Your task to perform on an android device: Open network settings Image 0: 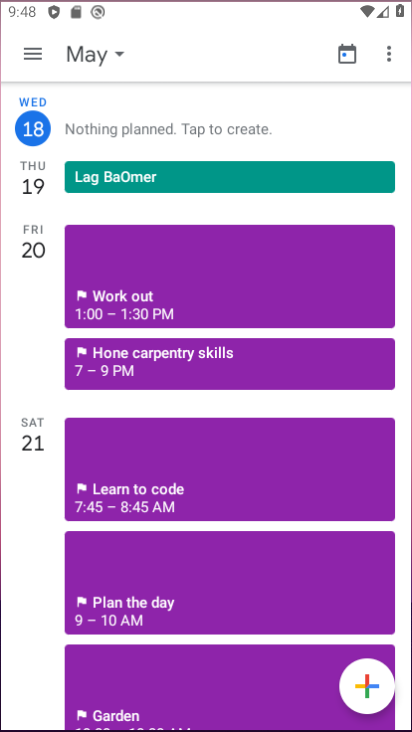
Step 0: drag from (207, 660) to (217, 299)
Your task to perform on an android device: Open network settings Image 1: 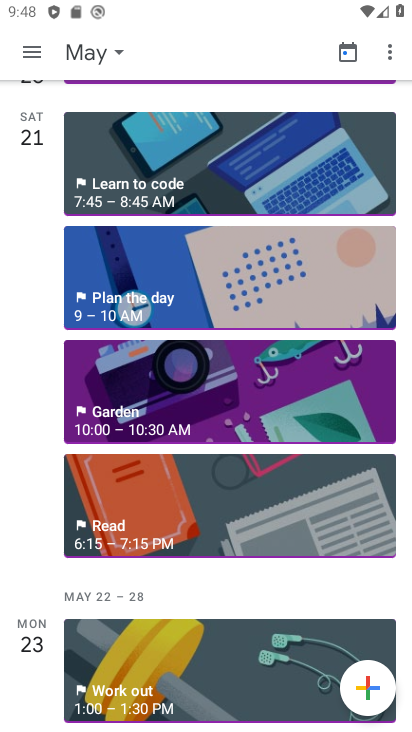
Step 1: press home button
Your task to perform on an android device: Open network settings Image 2: 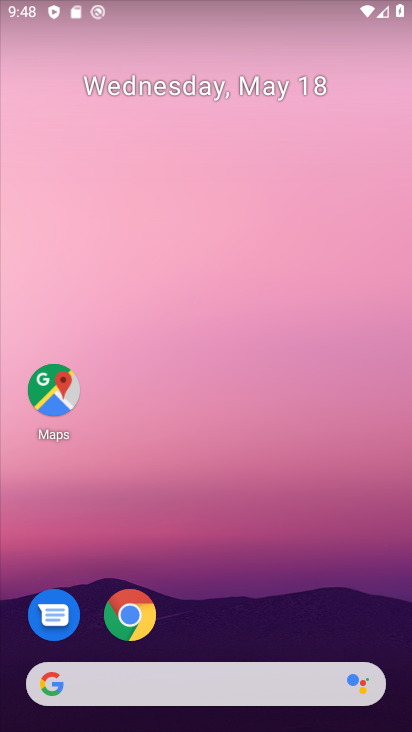
Step 2: drag from (233, 611) to (217, 262)
Your task to perform on an android device: Open network settings Image 3: 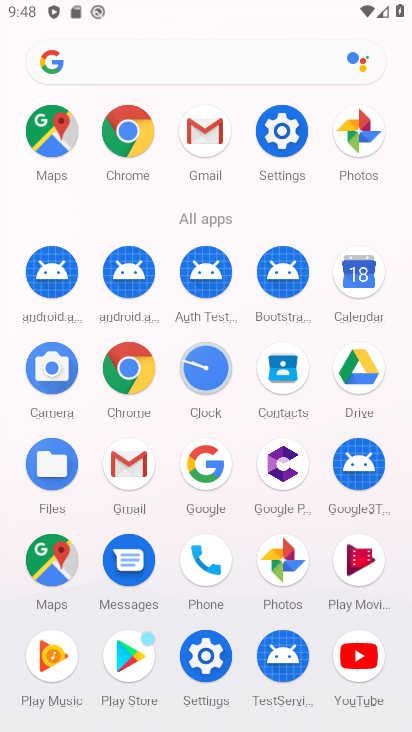
Step 3: click (273, 137)
Your task to perform on an android device: Open network settings Image 4: 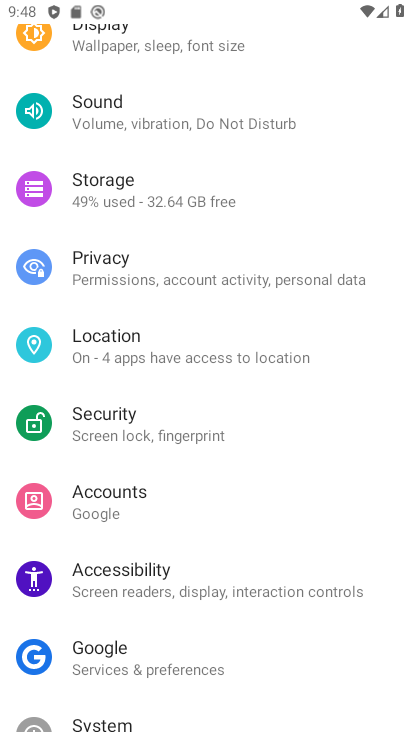
Step 4: drag from (156, 704) to (104, 278)
Your task to perform on an android device: Open network settings Image 5: 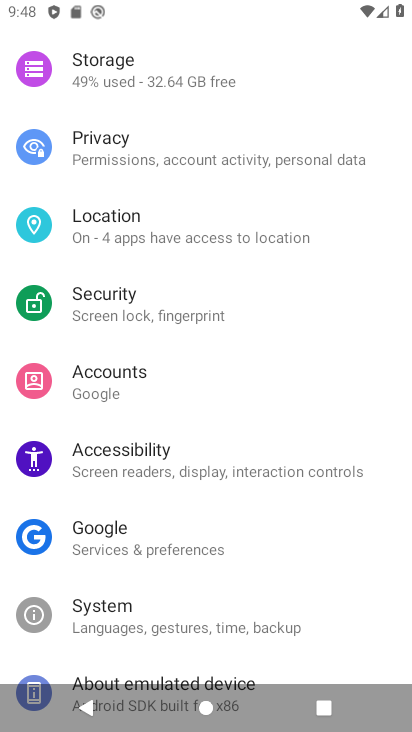
Step 5: drag from (153, 603) to (154, 187)
Your task to perform on an android device: Open network settings Image 6: 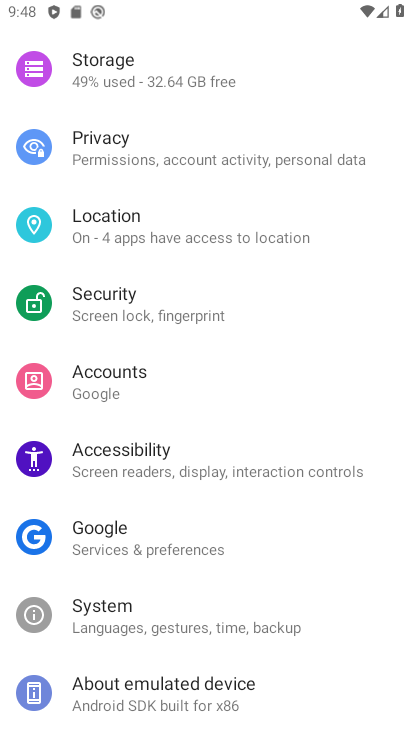
Step 6: drag from (158, 49) to (157, 475)
Your task to perform on an android device: Open network settings Image 7: 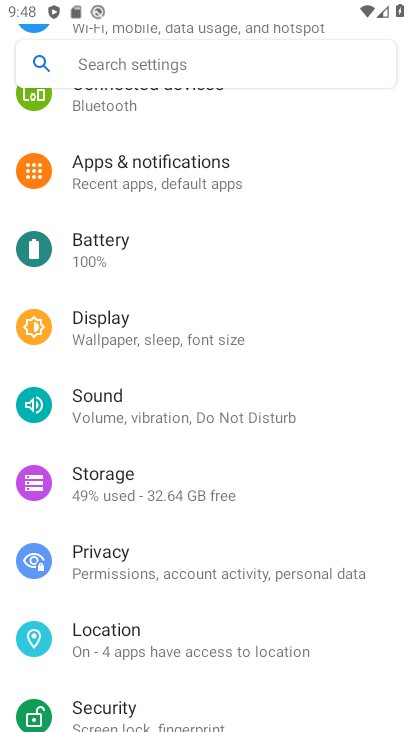
Step 7: drag from (164, 101) to (167, 568)
Your task to perform on an android device: Open network settings Image 8: 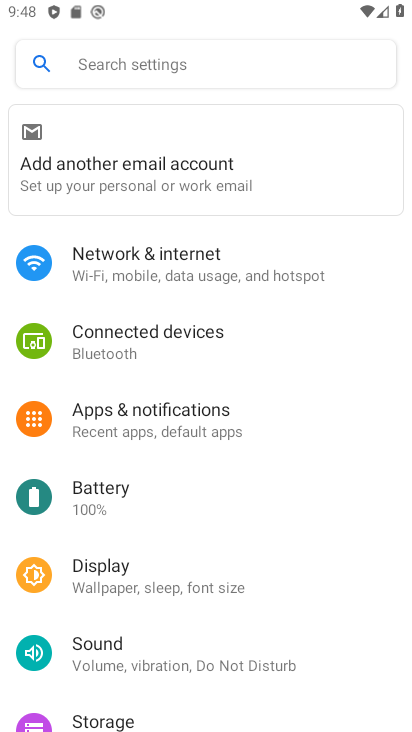
Step 8: click (120, 267)
Your task to perform on an android device: Open network settings Image 9: 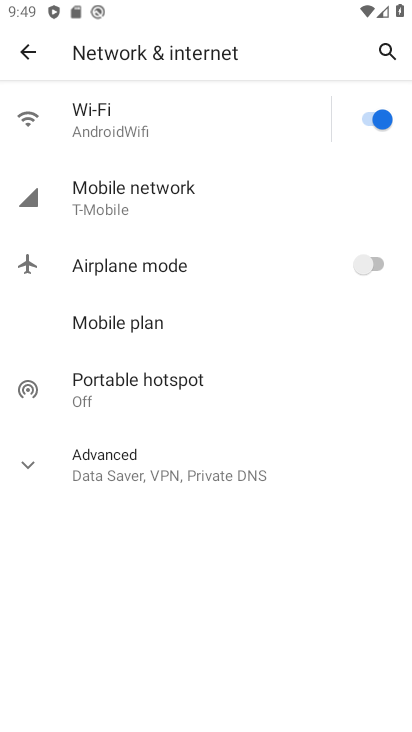
Step 9: click (94, 459)
Your task to perform on an android device: Open network settings Image 10: 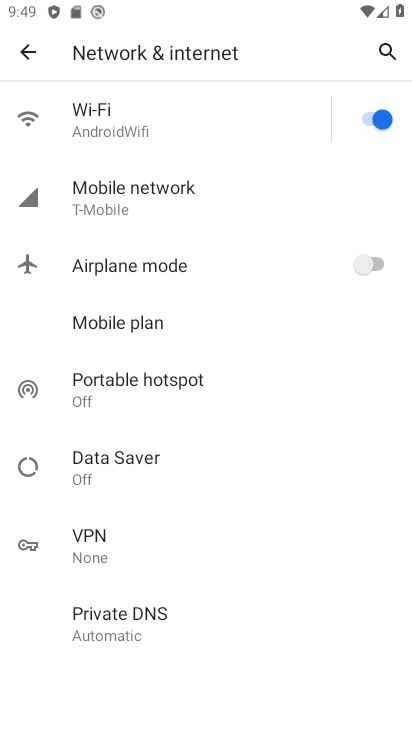
Step 10: task complete